Your task to perform on an android device: Search for the new nike air max shoes on Nike. Image 0: 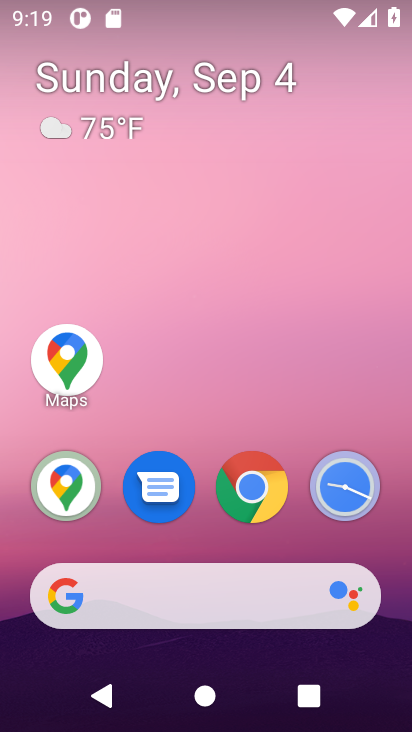
Step 0: click (72, 497)
Your task to perform on an android device: Search for the new nike air max shoes on Nike. Image 1: 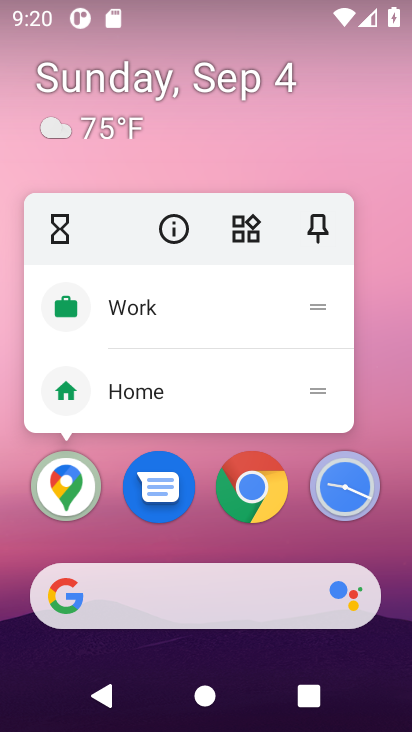
Step 1: click (142, 373)
Your task to perform on an android device: Search for the new nike air max shoes on Nike. Image 2: 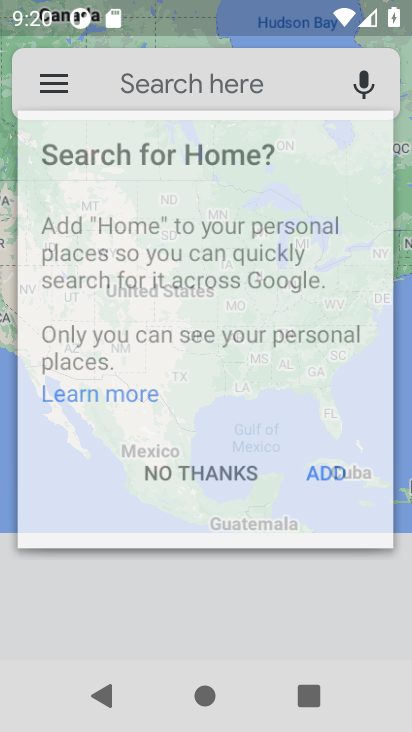
Step 2: task complete